Your task to perform on an android device: Add macbook to the cart on costco Image 0: 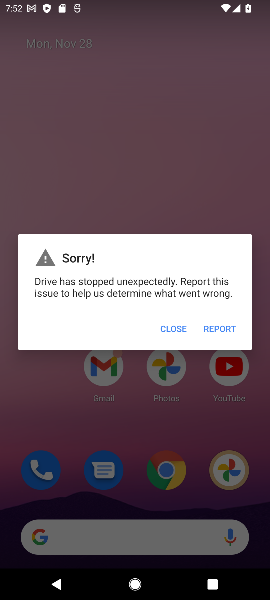
Step 0: press home button
Your task to perform on an android device: Add macbook to the cart on costco Image 1: 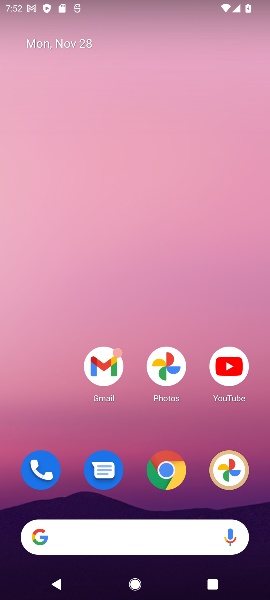
Step 1: click (130, 542)
Your task to perform on an android device: Add macbook to the cart on costco Image 2: 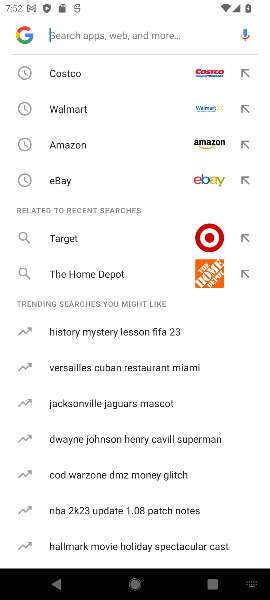
Step 2: click (118, 73)
Your task to perform on an android device: Add macbook to the cart on costco Image 3: 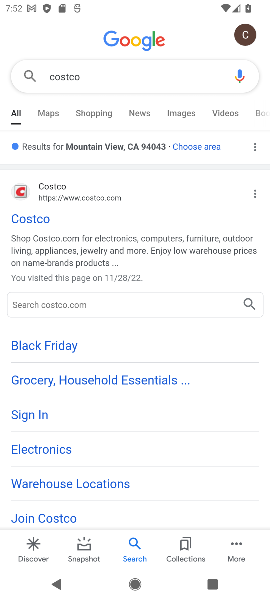
Step 3: click (118, 73)
Your task to perform on an android device: Add macbook to the cart on costco Image 4: 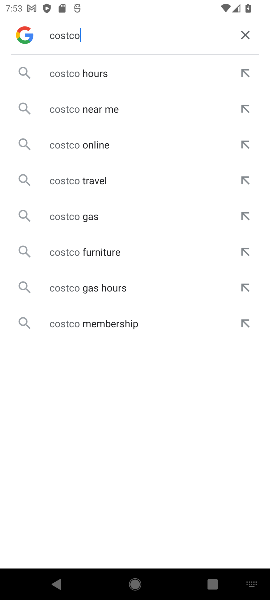
Step 4: press back button
Your task to perform on an android device: Add macbook to the cart on costco Image 5: 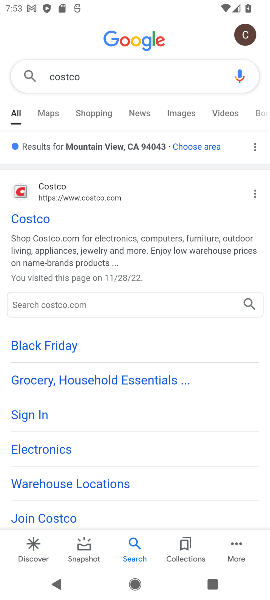
Step 5: click (33, 221)
Your task to perform on an android device: Add macbook to the cart on costco Image 6: 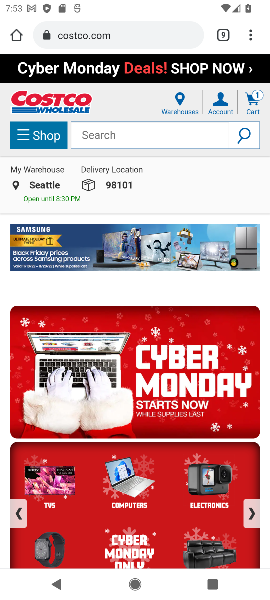
Step 6: click (111, 132)
Your task to perform on an android device: Add macbook to the cart on costco Image 7: 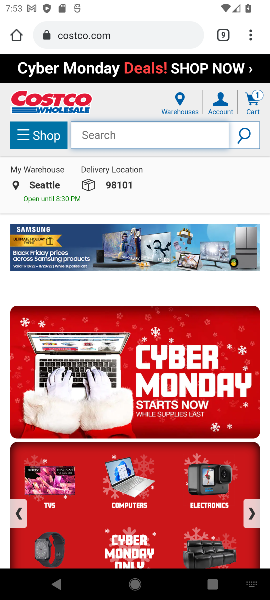
Step 7: type "macbook"
Your task to perform on an android device: Add macbook to the cart on costco Image 8: 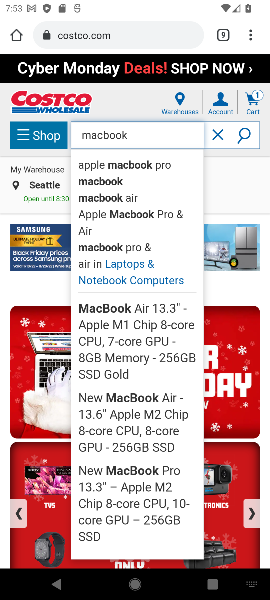
Step 8: click (89, 186)
Your task to perform on an android device: Add macbook to the cart on costco Image 9: 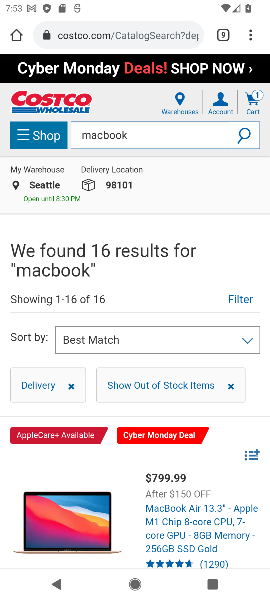
Step 9: drag from (200, 542) to (198, 339)
Your task to perform on an android device: Add macbook to the cart on costco Image 10: 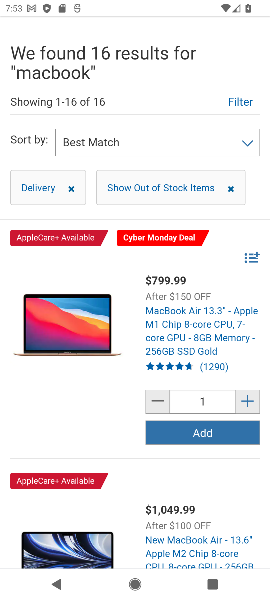
Step 10: click (190, 425)
Your task to perform on an android device: Add macbook to the cart on costco Image 11: 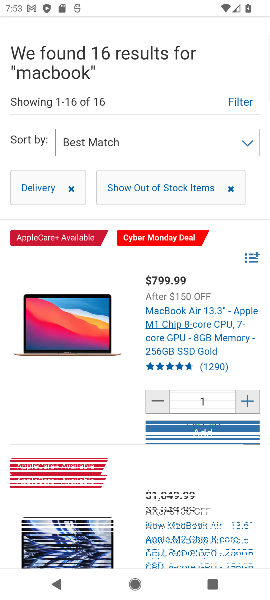
Step 11: task complete